Your task to perform on an android device: Show me popular games on the Play Store Image 0: 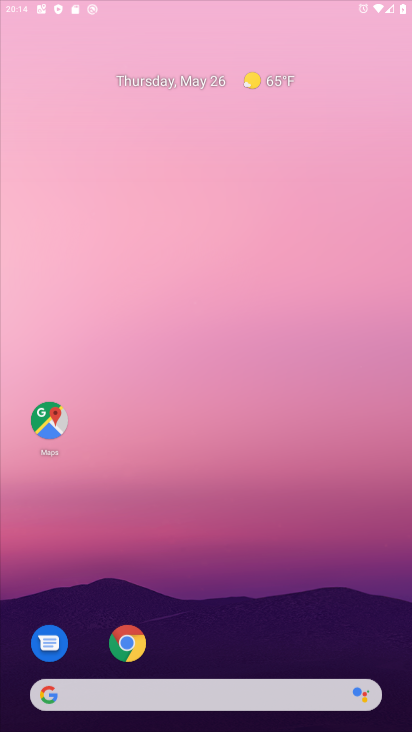
Step 0: click (182, 116)
Your task to perform on an android device: Show me popular games on the Play Store Image 1: 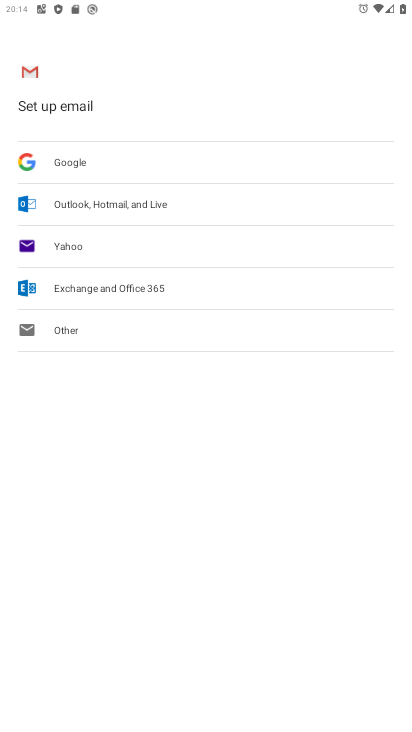
Step 1: click (213, 594)
Your task to perform on an android device: Show me popular games on the Play Store Image 2: 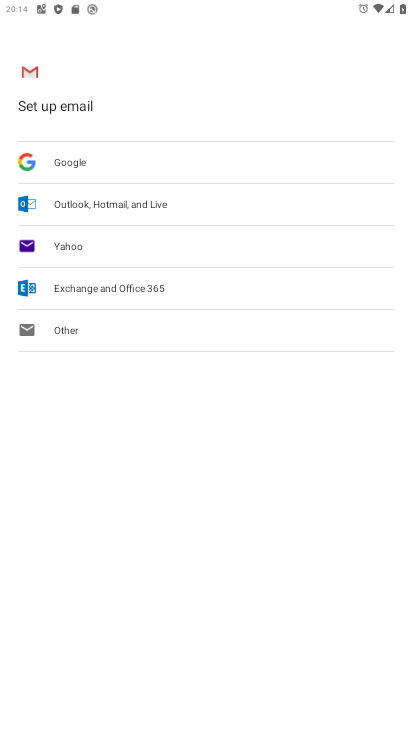
Step 2: press home button
Your task to perform on an android device: Show me popular games on the Play Store Image 3: 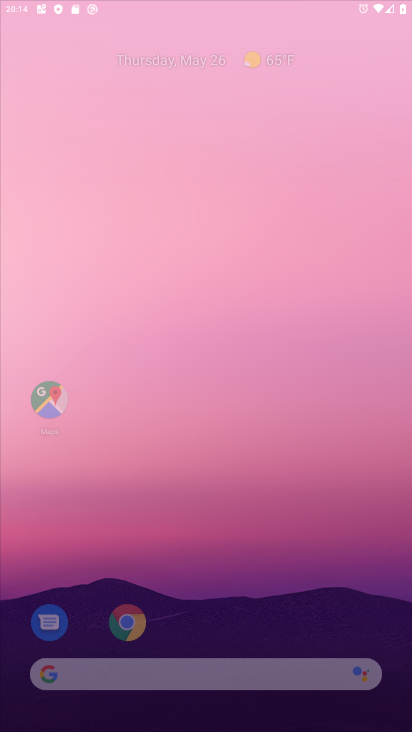
Step 3: drag from (109, 538) to (157, 137)
Your task to perform on an android device: Show me popular games on the Play Store Image 4: 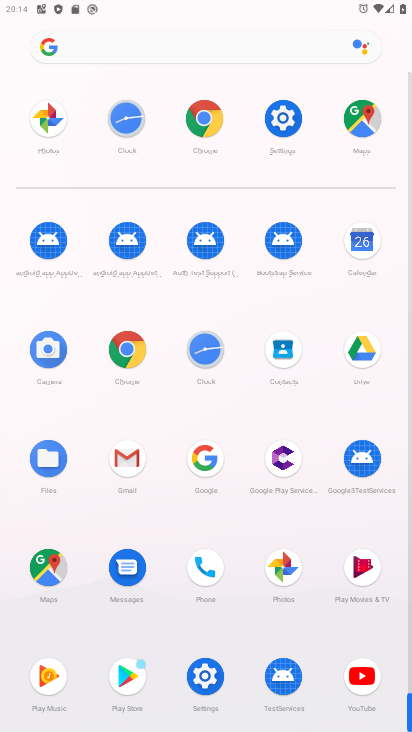
Step 4: click (118, 686)
Your task to perform on an android device: Show me popular games on the Play Store Image 5: 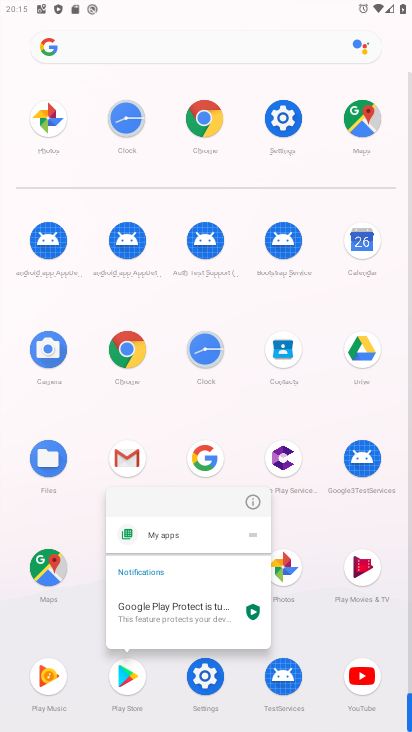
Step 5: click (253, 508)
Your task to perform on an android device: Show me popular games on the Play Store Image 6: 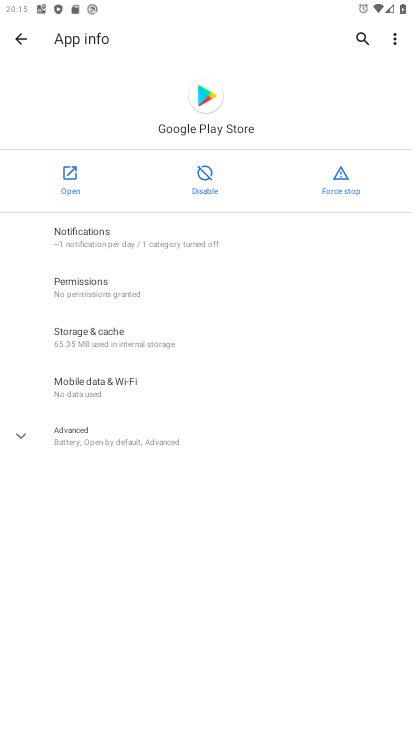
Step 6: click (56, 173)
Your task to perform on an android device: Show me popular games on the Play Store Image 7: 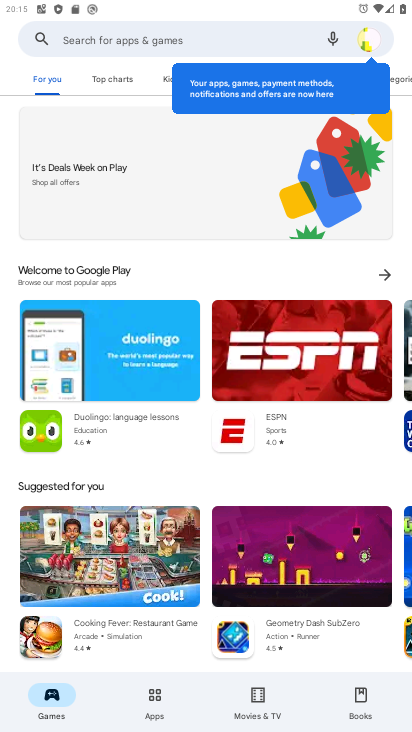
Step 7: drag from (273, 502) to (350, 4)
Your task to perform on an android device: Show me popular games on the Play Store Image 8: 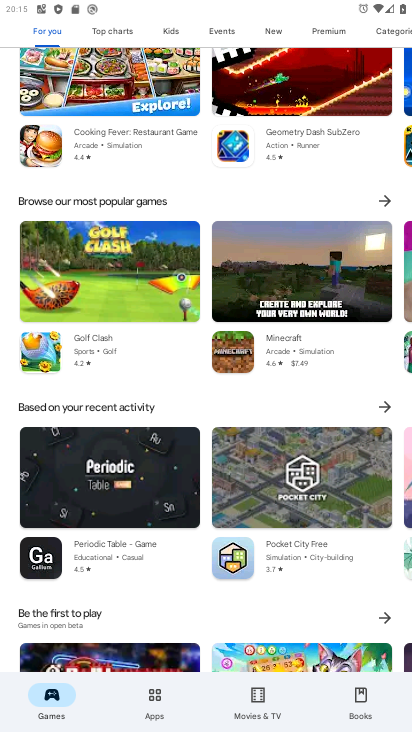
Step 8: drag from (224, 605) to (233, 108)
Your task to perform on an android device: Show me popular games on the Play Store Image 9: 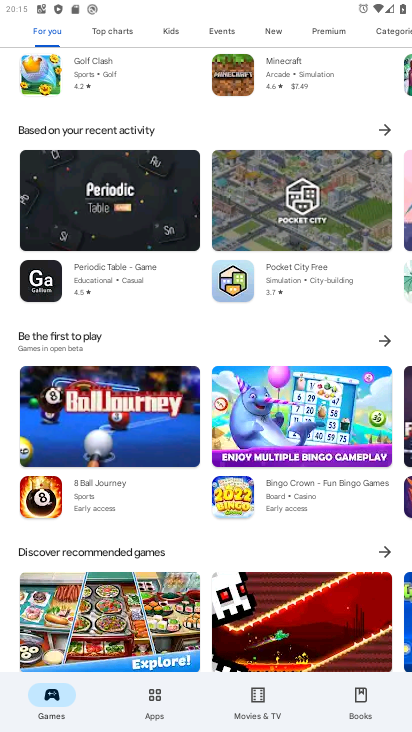
Step 9: drag from (184, 552) to (293, 174)
Your task to perform on an android device: Show me popular games on the Play Store Image 10: 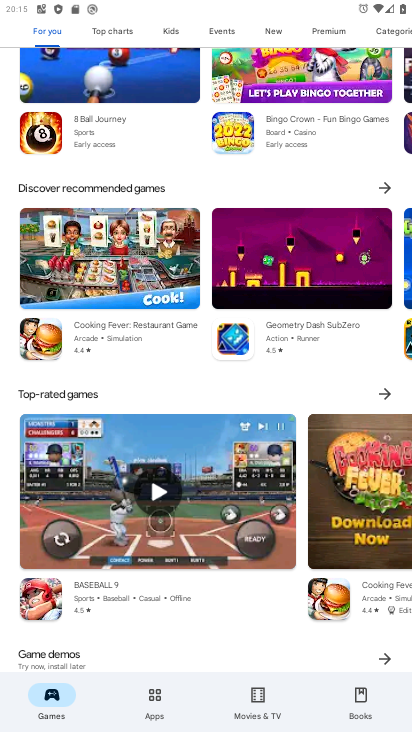
Step 10: click (43, 728)
Your task to perform on an android device: Show me popular games on the Play Store Image 11: 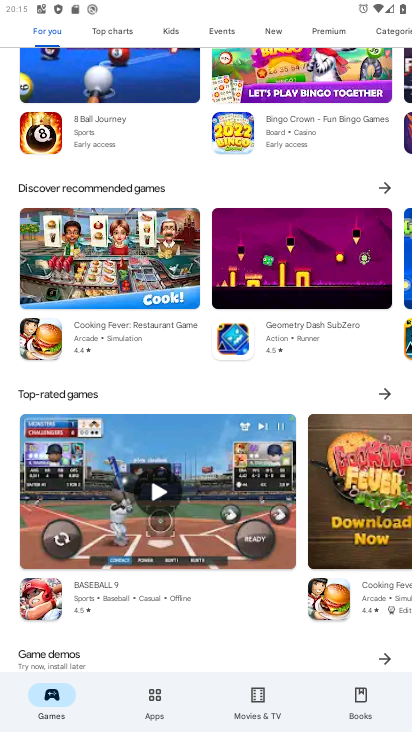
Step 11: click (140, 701)
Your task to perform on an android device: Show me popular games on the Play Store Image 12: 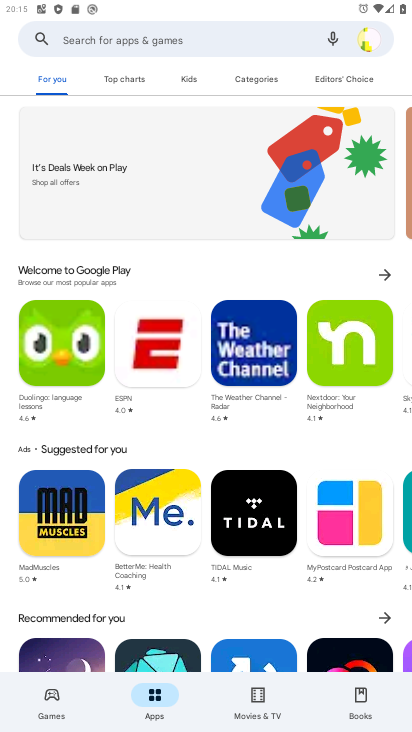
Step 12: drag from (247, 512) to (407, 68)
Your task to perform on an android device: Show me popular games on the Play Store Image 13: 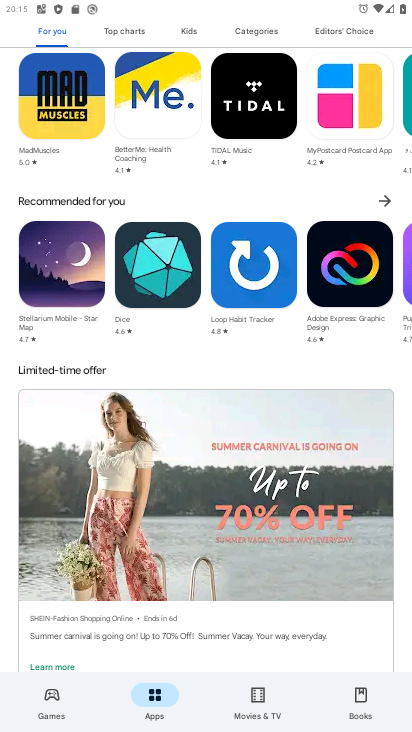
Step 13: drag from (218, 582) to (355, 67)
Your task to perform on an android device: Show me popular games on the Play Store Image 14: 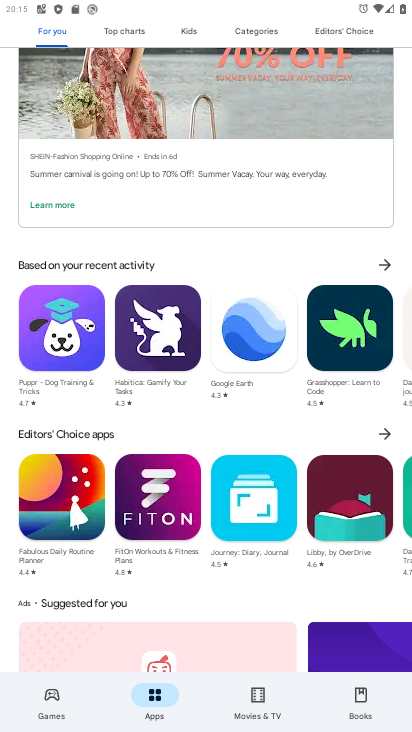
Step 14: drag from (252, 400) to (326, 148)
Your task to perform on an android device: Show me popular games on the Play Store Image 15: 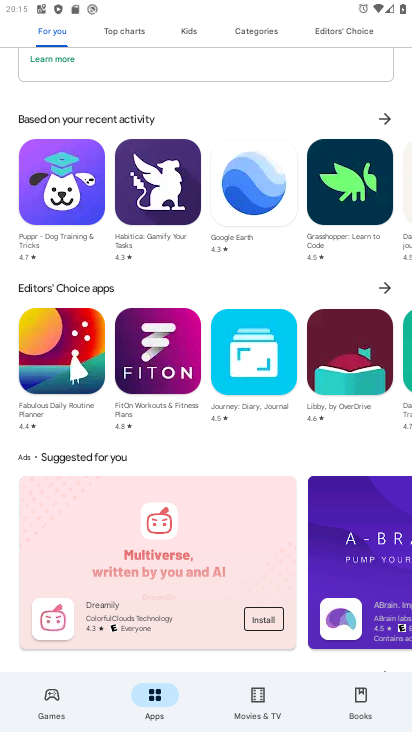
Step 15: click (66, 721)
Your task to perform on an android device: Show me popular games on the Play Store Image 16: 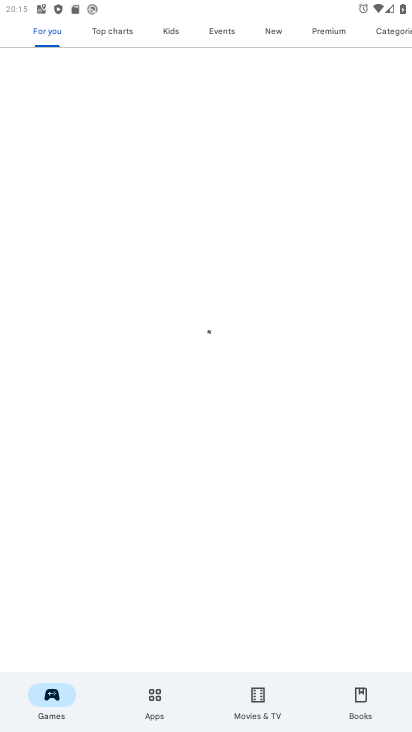
Step 16: task complete